Your task to perform on an android device: Show me recent news Image 0: 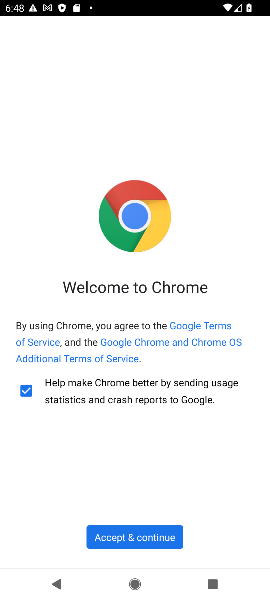
Step 0: press home button
Your task to perform on an android device: Show me recent news Image 1: 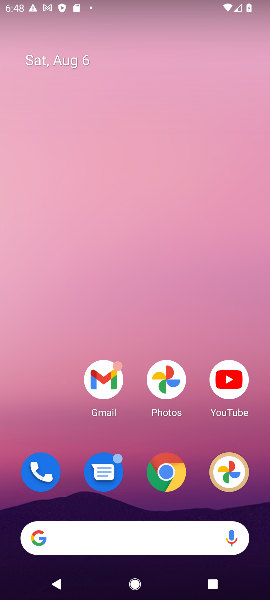
Step 1: task complete